Your task to perform on an android device: turn on data saver in the chrome app Image 0: 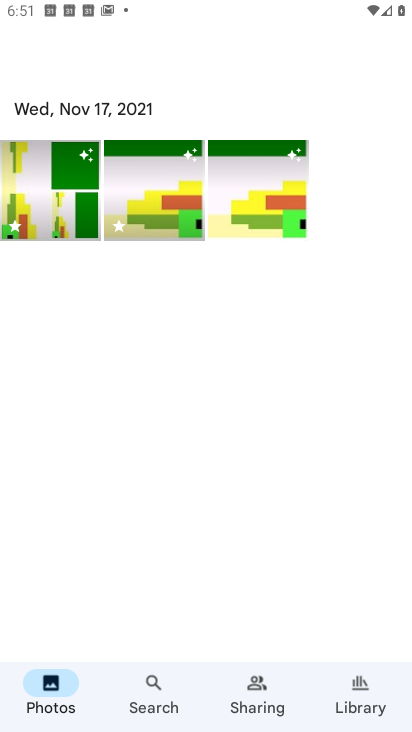
Step 0: click (216, 619)
Your task to perform on an android device: turn on data saver in the chrome app Image 1: 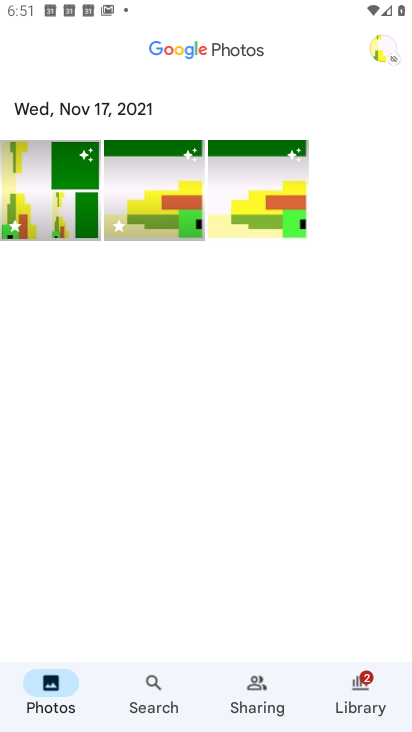
Step 1: press home button
Your task to perform on an android device: turn on data saver in the chrome app Image 2: 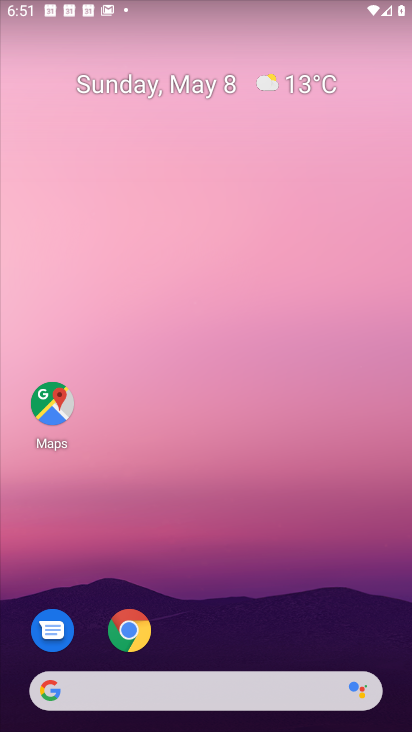
Step 2: click (127, 637)
Your task to perform on an android device: turn on data saver in the chrome app Image 3: 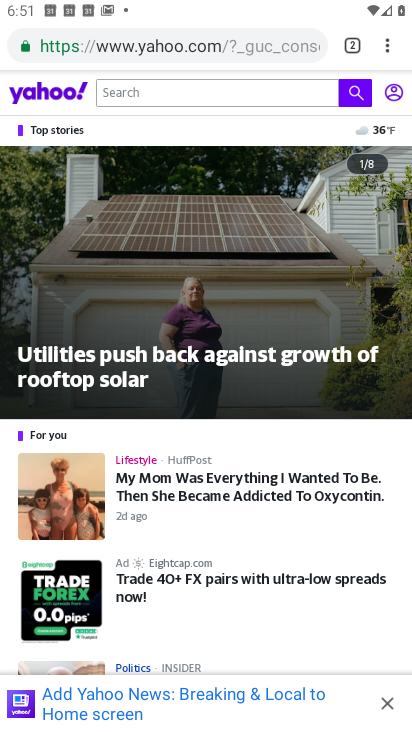
Step 3: click (383, 50)
Your task to perform on an android device: turn on data saver in the chrome app Image 4: 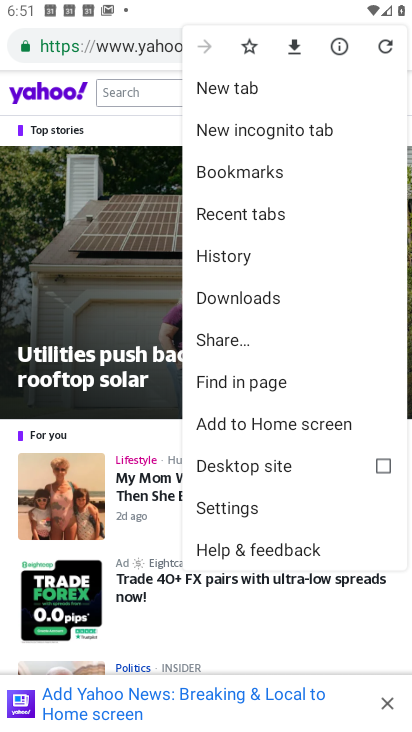
Step 4: click (240, 510)
Your task to perform on an android device: turn on data saver in the chrome app Image 5: 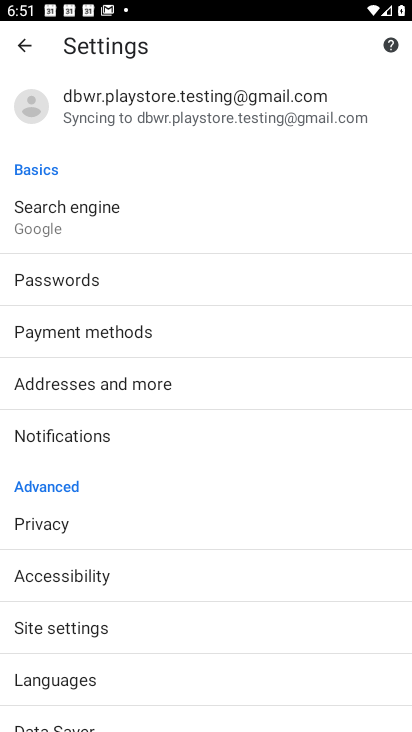
Step 5: drag from (213, 623) to (192, 188)
Your task to perform on an android device: turn on data saver in the chrome app Image 6: 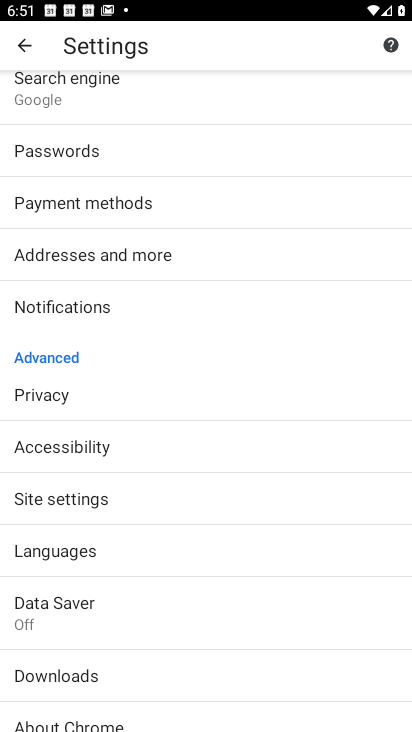
Step 6: click (51, 608)
Your task to perform on an android device: turn on data saver in the chrome app Image 7: 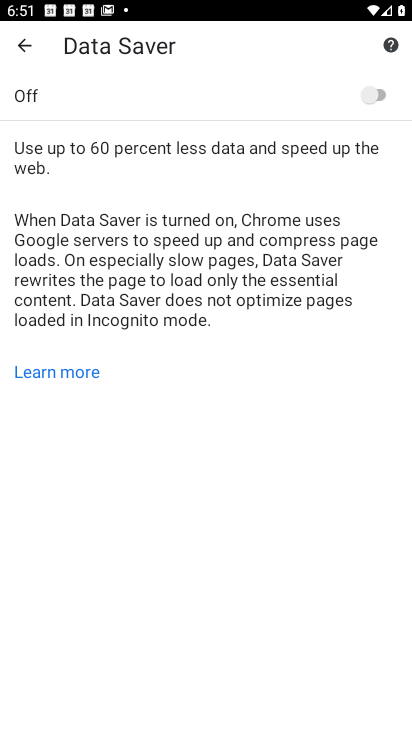
Step 7: click (374, 99)
Your task to perform on an android device: turn on data saver in the chrome app Image 8: 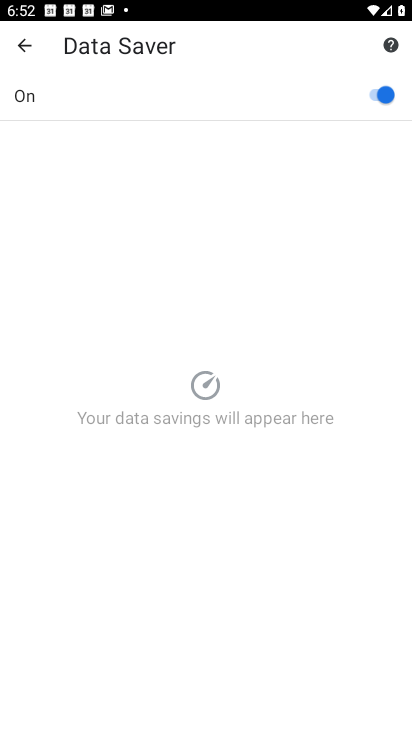
Step 8: task complete